Your task to perform on an android device: Go to accessibility settings Image 0: 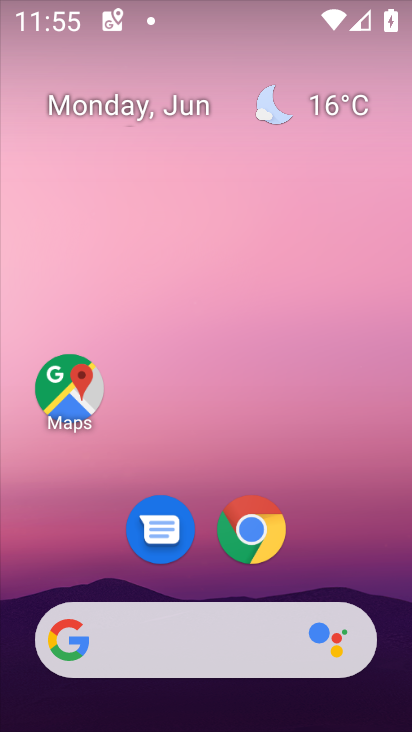
Step 0: drag from (113, 579) to (212, 94)
Your task to perform on an android device: Go to accessibility settings Image 1: 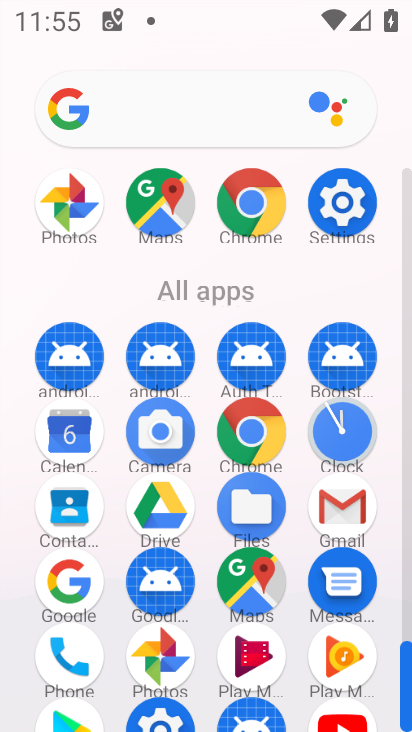
Step 1: drag from (174, 596) to (243, 293)
Your task to perform on an android device: Go to accessibility settings Image 2: 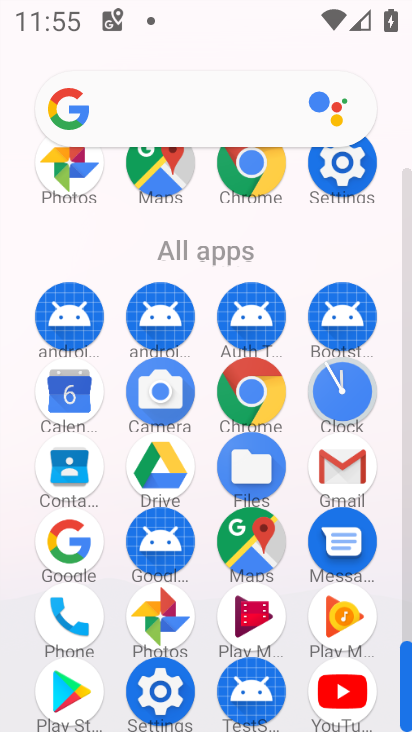
Step 2: click (158, 672)
Your task to perform on an android device: Go to accessibility settings Image 3: 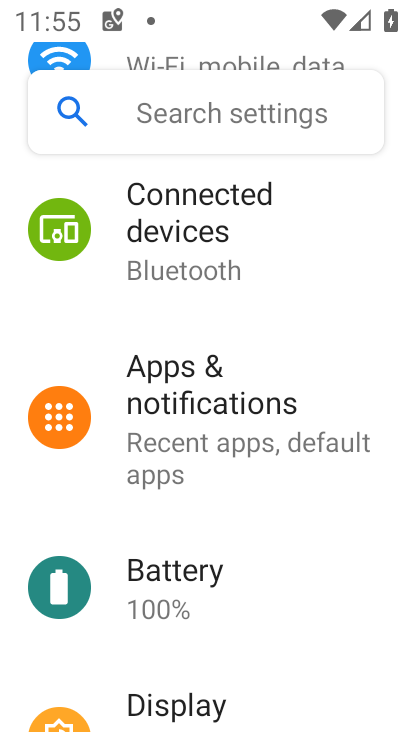
Step 3: drag from (163, 670) to (295, 130)
Your task to perform on an android device: Go to accessibility settings Image 4: 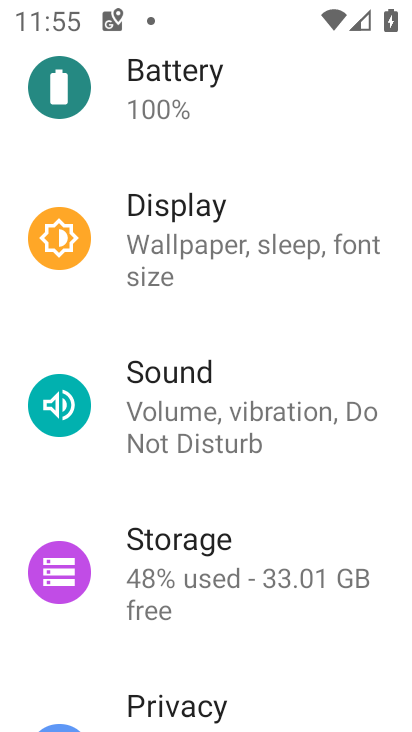
Step 4: drag from (149, 627) to (278, 153)
Your task to perform on an android device: Go to accessibility settings Image 5: 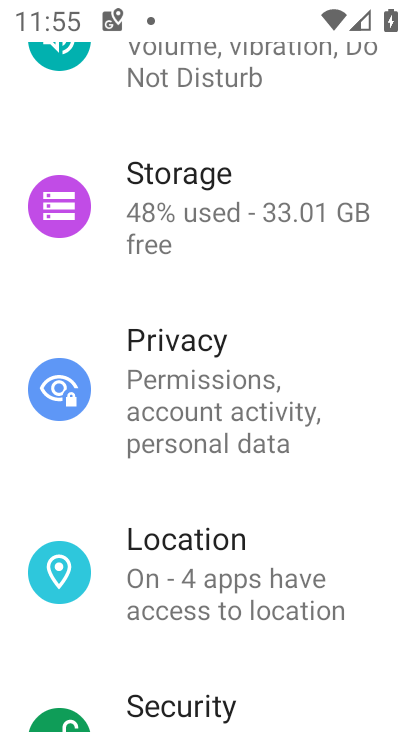
Step 5: drag from (138, 624) to (268, 176)
Your task to perform on an android device: Go to accessibility settings Image 6: 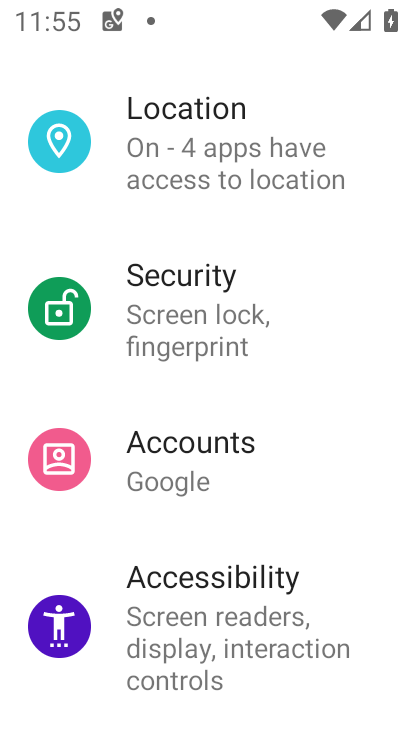
Step 6: drag from (219, 607) to (330, 229)
Your task to perform on an android device: Go to accessibility settings Image 7: 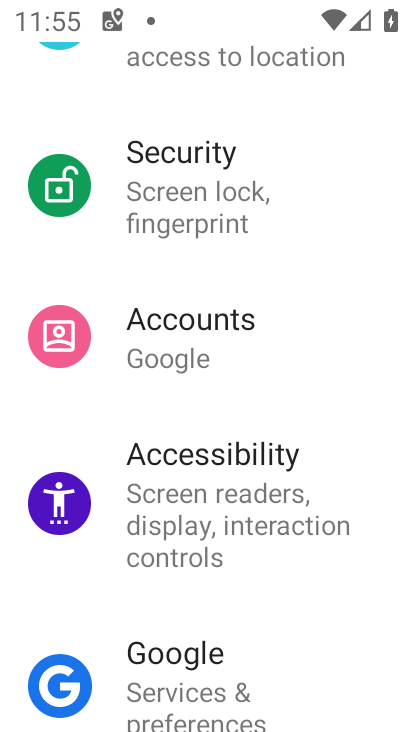
Step 7: drag from (202, 655) to (275, 269)
Your task to perform on an android device: Go to accessibility settings Image 8: 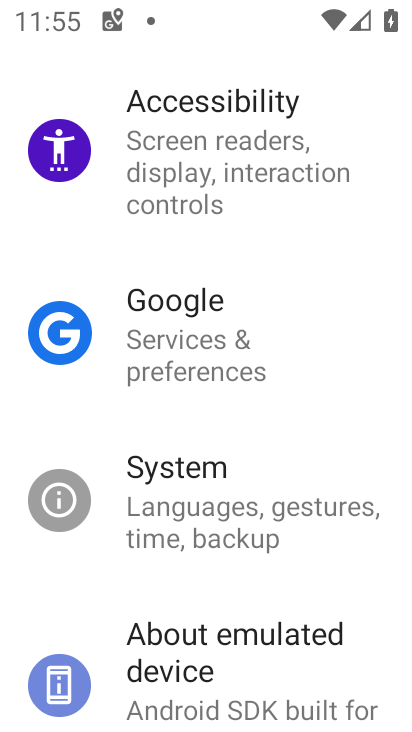
Step 8: drag from (164, 637) to (183, 705)
Your task to perform on an android device: Go to accessibility settings Image 9: 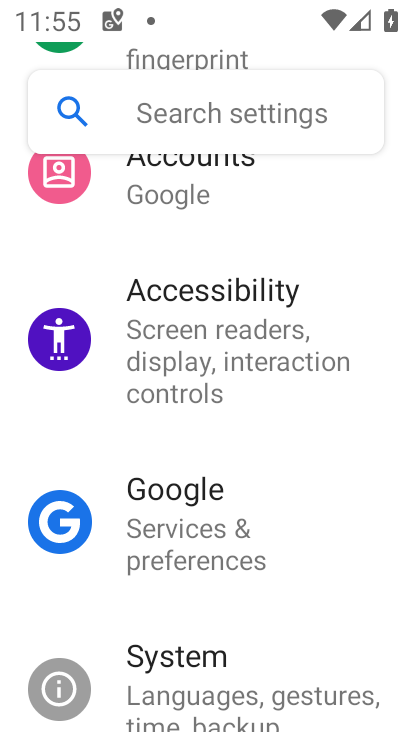
Step 9: click (188, 418)
Your task to perform on an android device: Go to accessibility settings Image 10: 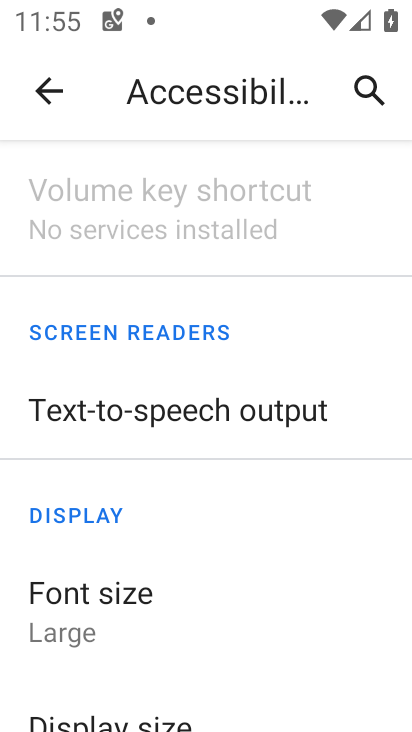
Step 10: task complete